Your task to perform on an android device: turn on bluetooth scan Image 0: 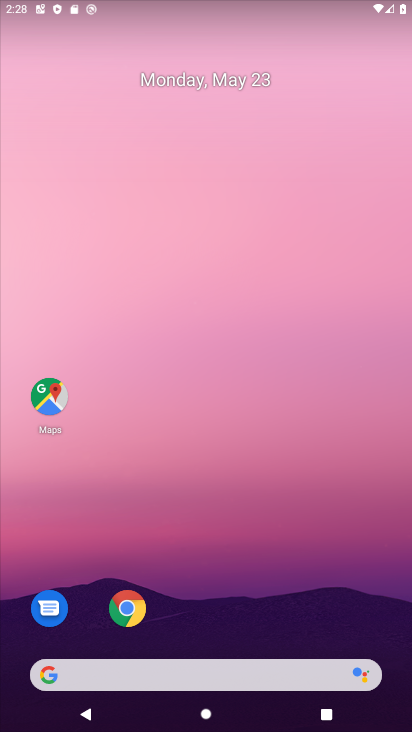
Step 0: drag from (206, 533) to (183, 2)
Your task to perform on an android device: turn on bluetooth scan Image 1: 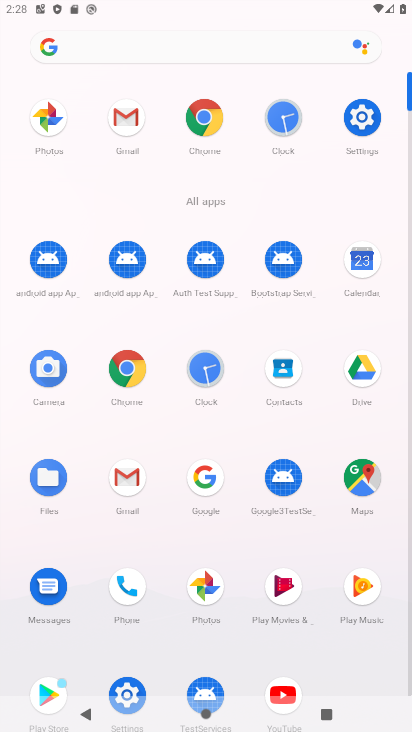
Step 1: click (376, 124)
Your task to perform on an android device: turn on bluetooth scan Image 2: 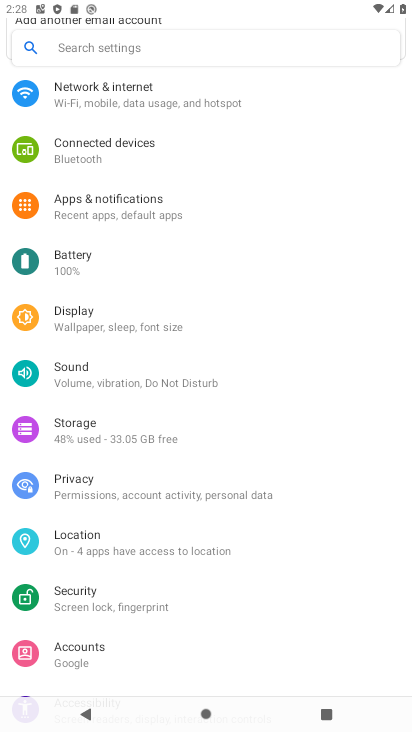
Step 2: click (136, 558)
Your task to perform on an android device: turn on bluetooth scan Image 3: 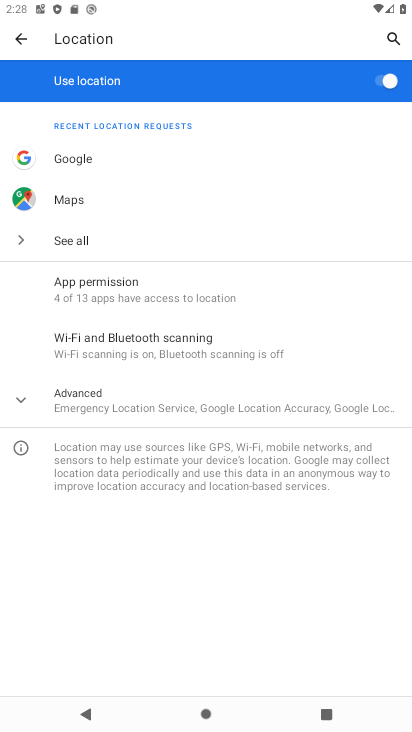
Step 3: click (152, 344)
Your task to perform on an android device: turn on bluetooth scan Image 4: 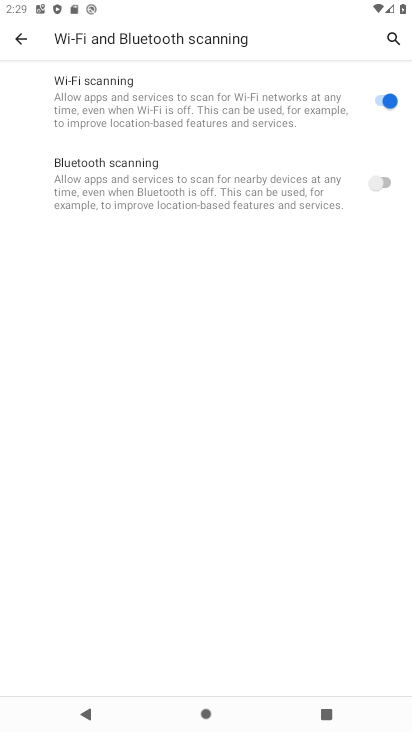
Step 4: click (375, 168)
Your task to perform on an android device: turn on bluetooth scan Image 5: 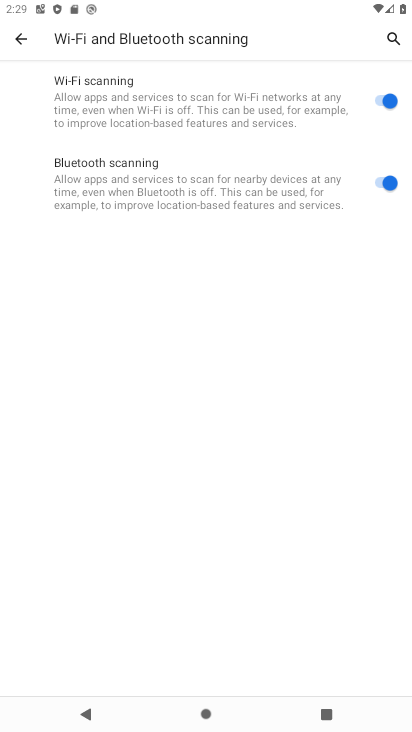
Step 5: task complete